Your task to perform on an android device: Open Google Chrome and open the bookmarks view Image 0: 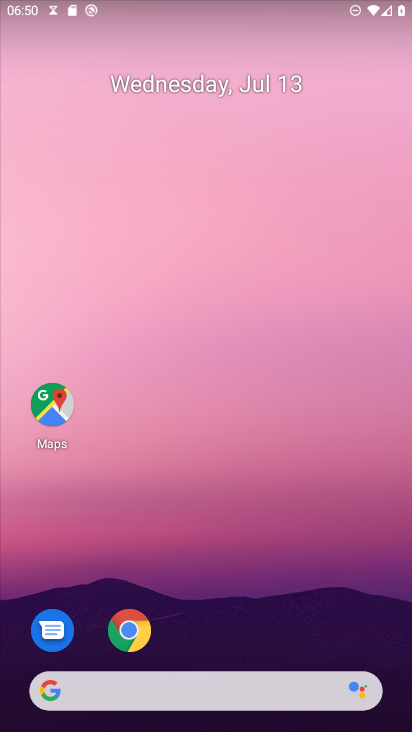
Step 0: drag from (290, 662) to (274, 166)
Your task to perform on an android device: Open Google Chrome and open the bookmarks view Image 1: 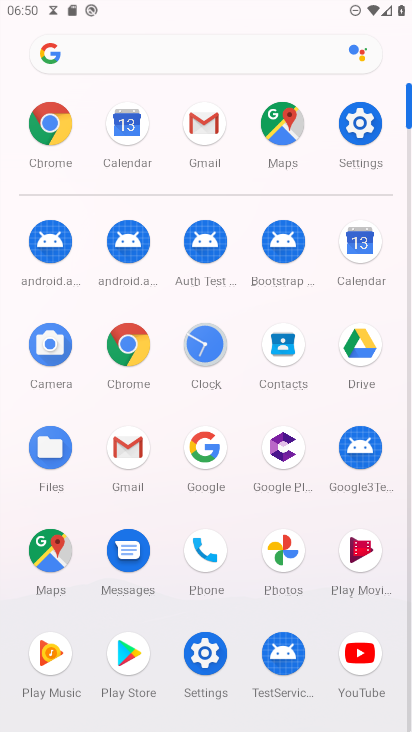
Step 1: click (148, 332)
Your task to perform on an android device: Open Google Chrome and open the bookmarks view Image 2: 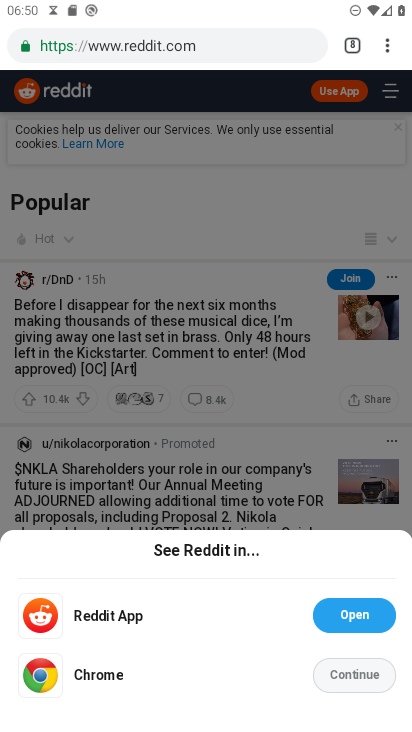
Step 2: task complete